Your task to perform on an android device: find which apps use the phone's location Image 0: 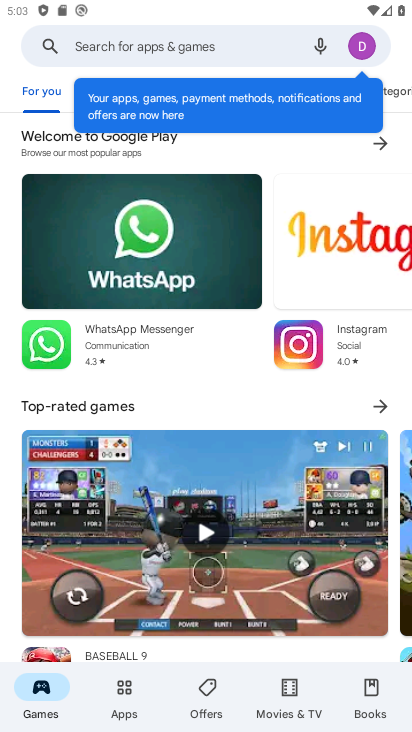
Step 0: press home button
Your task to perform on an android device: find which apps use the phone's location Image 1: 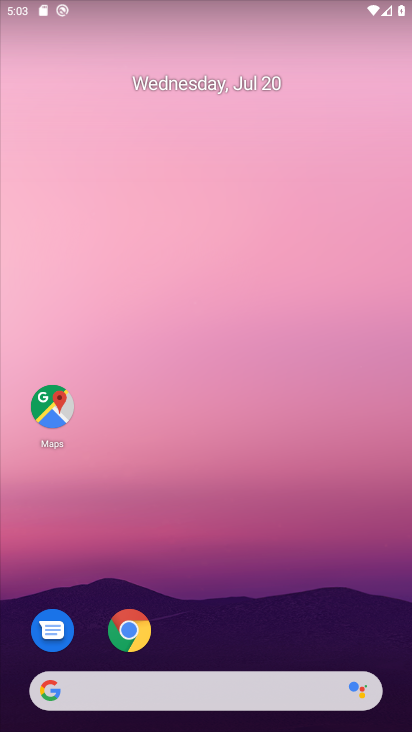
Step 1: drag from (213, 547) to (280, 122)
Your task to perform on an android device: find which apps use the phone's location Image 2: 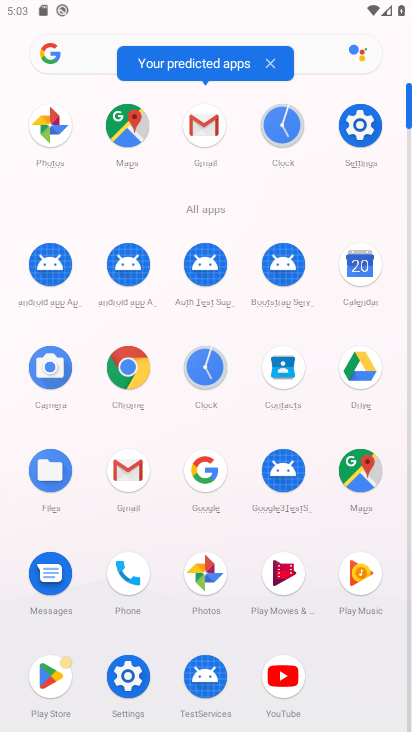
Step 2: click (362, 127)
Your task to perform on an android device: find which apps use the phone's location Image 3: 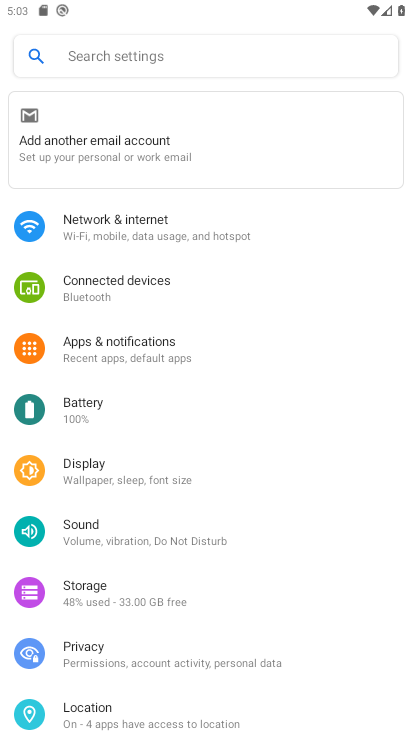
Step 3: click (87, 708)
Your task to perform on an android device: find which apps use the phone's location Image 4: 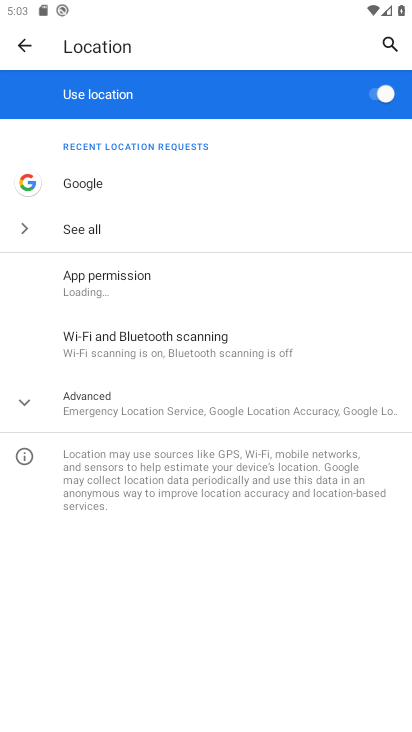
Step 4: click (91, 285)
Your task to perform on an android device: find which apps use the phone's location Image 5: 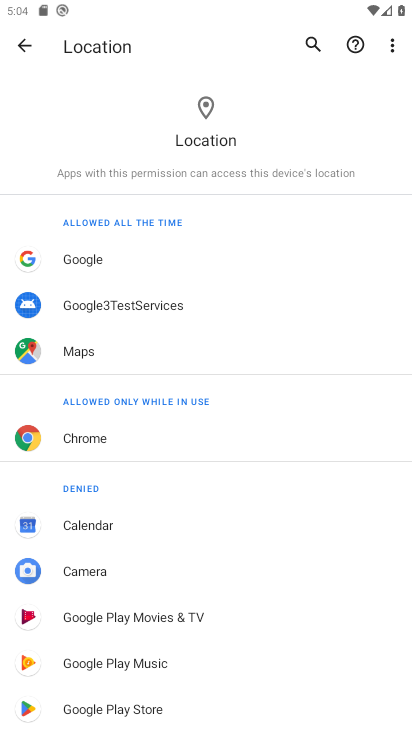
Step 5: task complete